Your task to perform on an android device: Show me the alarms in the clock app Image 0: 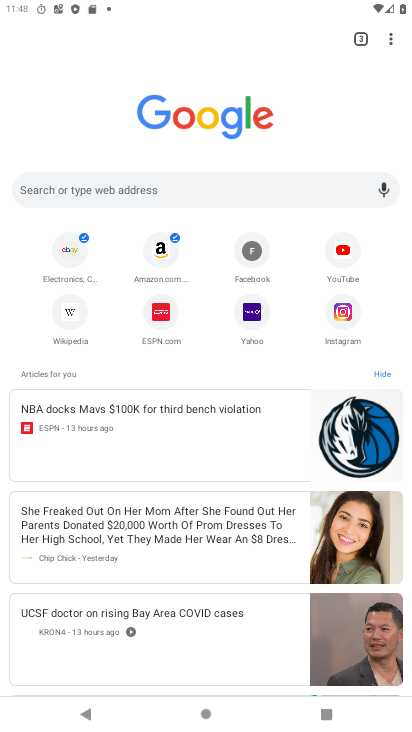
Step 0: press home button
Your task to perform on an android device: Show me the alarms in the clock app Image 1: 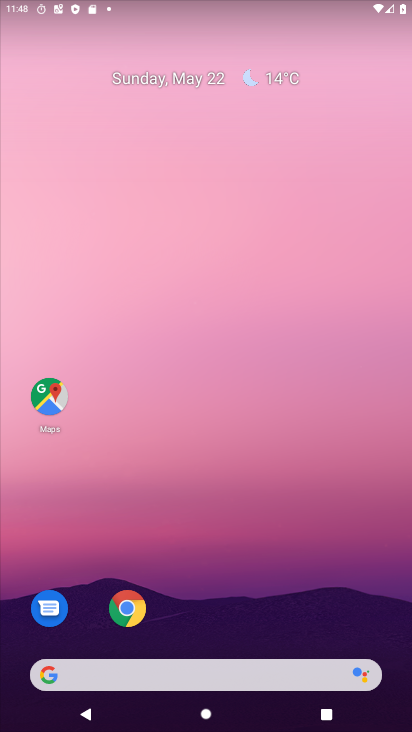
Step 1: drag from (206, 697) to (186, 168)
Your task to perform on an android device: Show me the alarms in the clock app Image 2: 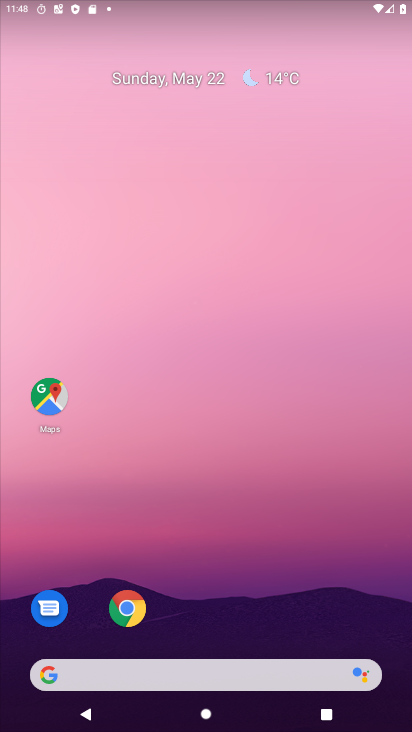
Step 2: drag from (230, 421) to (217, 150)
Your task to perform on an android device: Show me the alarms in the clock app Image 3: 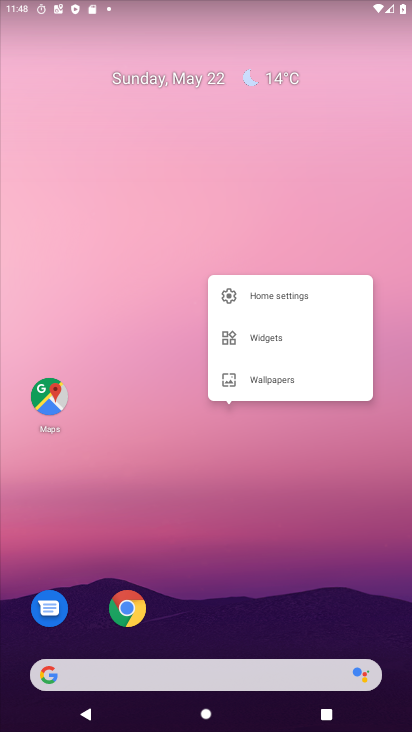
Step 3: click (212, 158)
Your task to perform on an android device: Show me the alarms in the clock app Image 4: 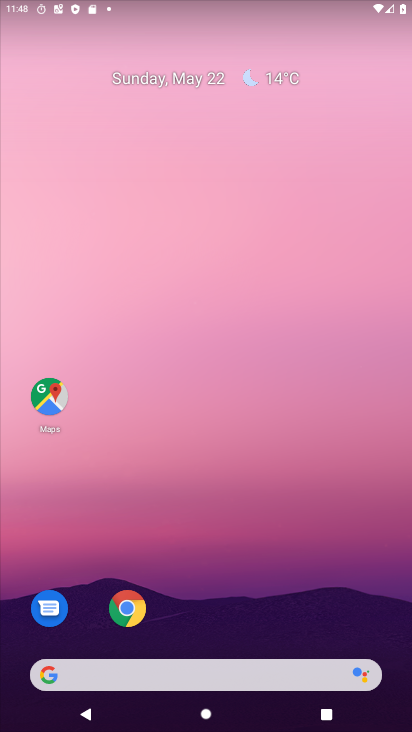
Step 4: drag from (220, 727) to (194, 4)
Your task to perform on an android device: Show me the alarms in the clock app Image 5: 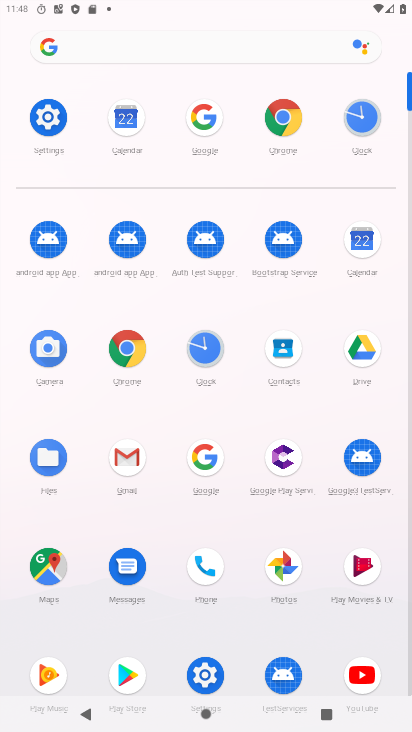
Step 5: click (204, 343)
Your task to perform on an android device: Show me the alarms in the clock app Image 6: 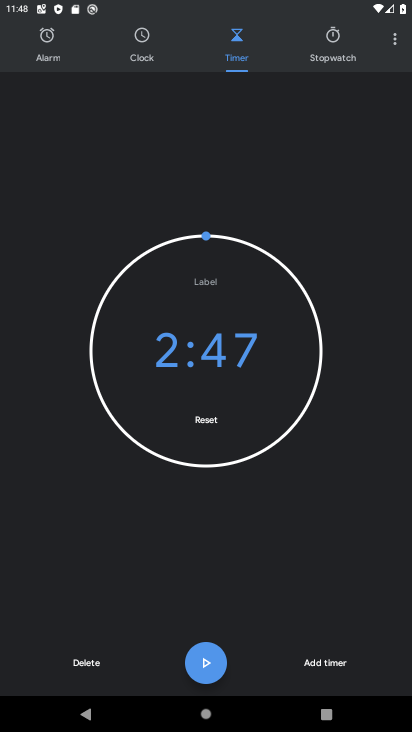
Step 6: click (54, 40)
Your task to perform on an android device: Show me the alarms in the clock app Image 7: 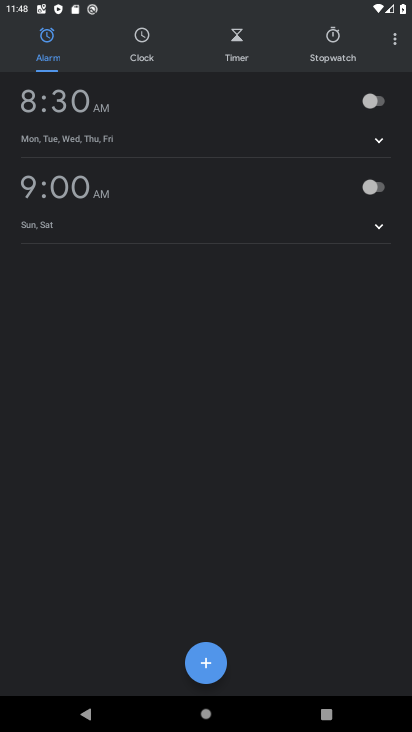
Step 7: task complete